Your task to perform on an android device: turn pop-ups on in chrome Image 0: 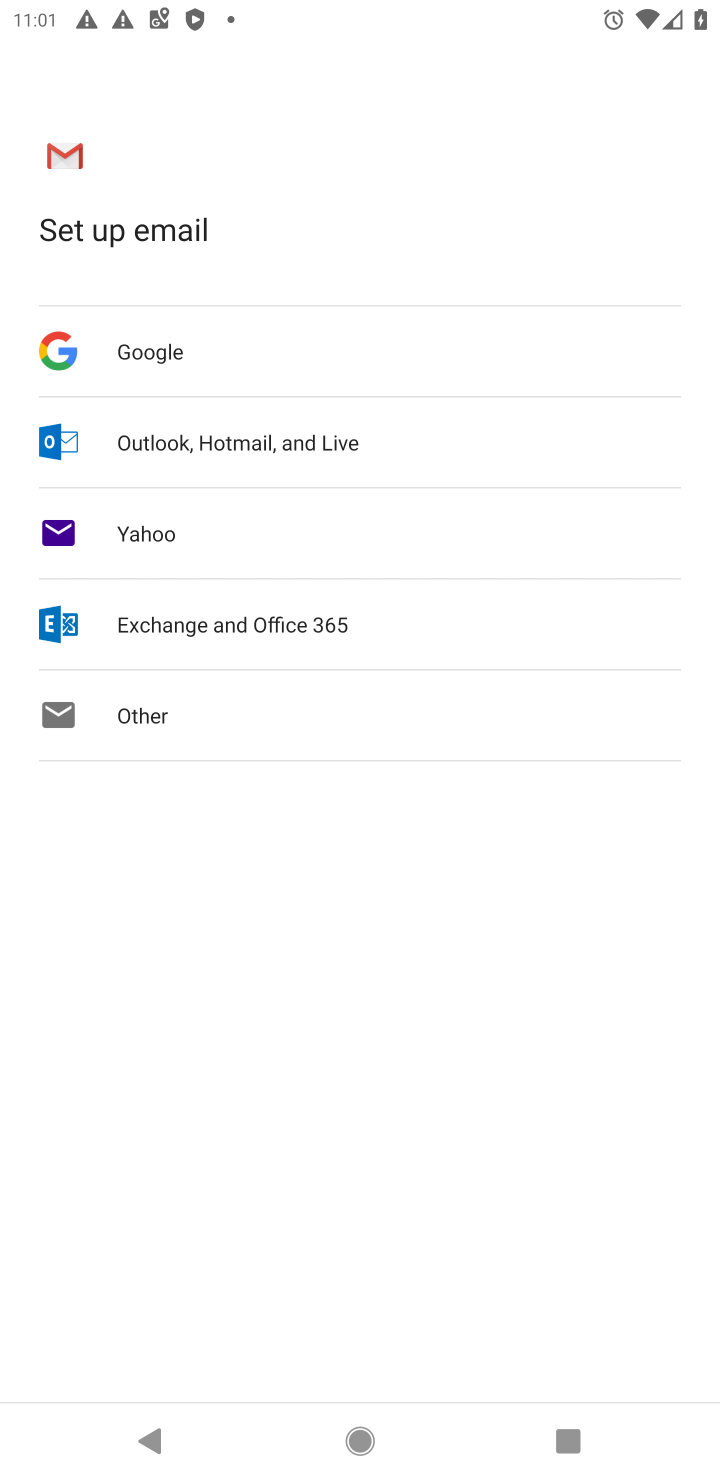
Step 0: press home button
Your task to perform on an android device: turn pop-ups on in chrome Image 1: 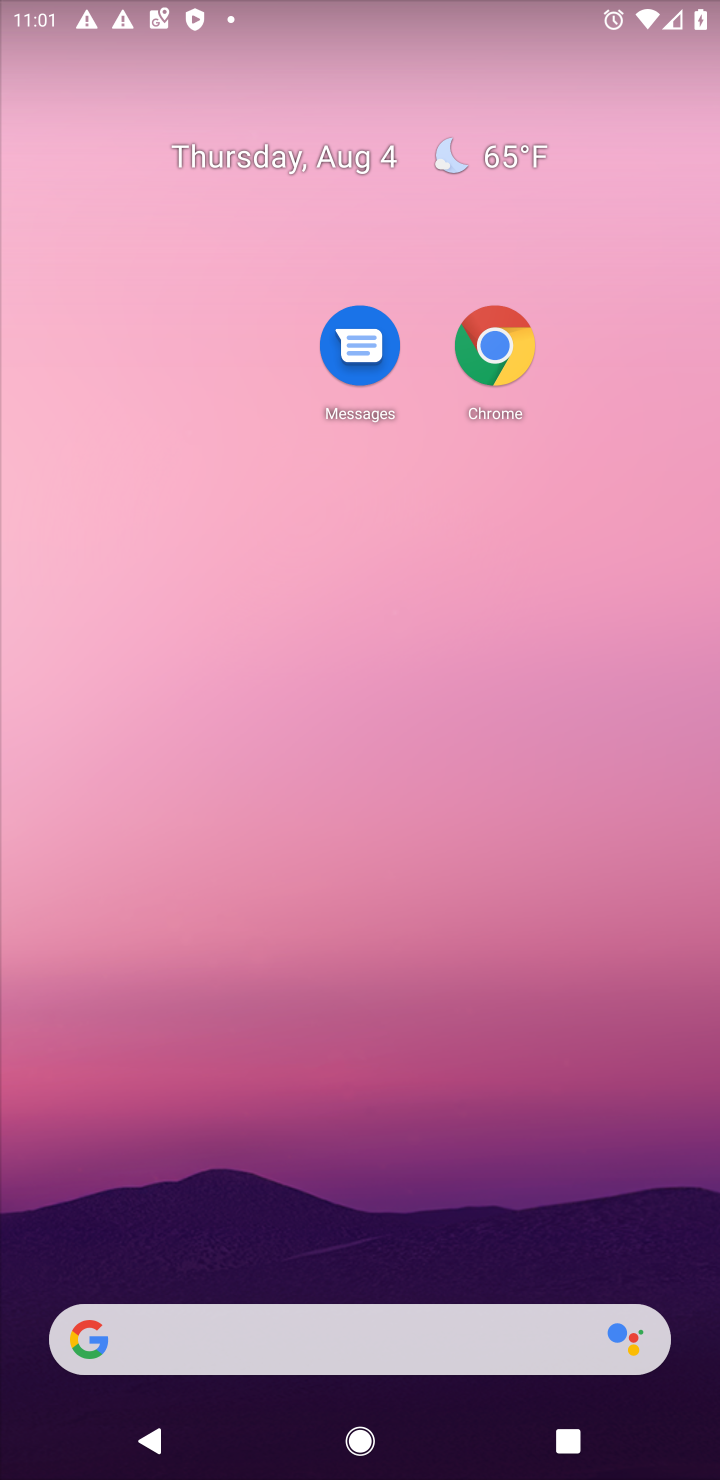
Step 1: drag from (480, 1281) to (509, 46)
Your task to perform on an android device: turn pop-ups on in chrome Image 2: 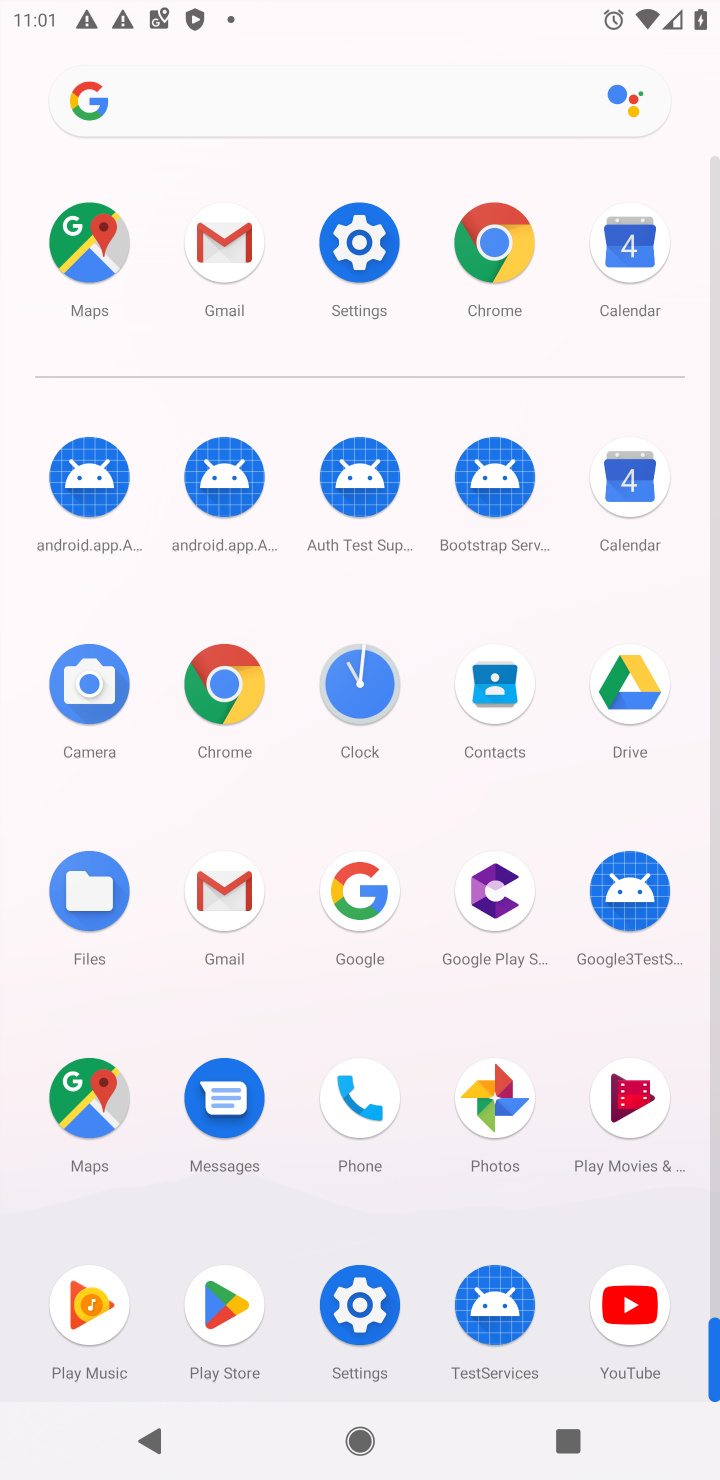
Step 2: click (454, 250)
Your task to perform on an android device: turn pop-ups on in chrome Image 3: 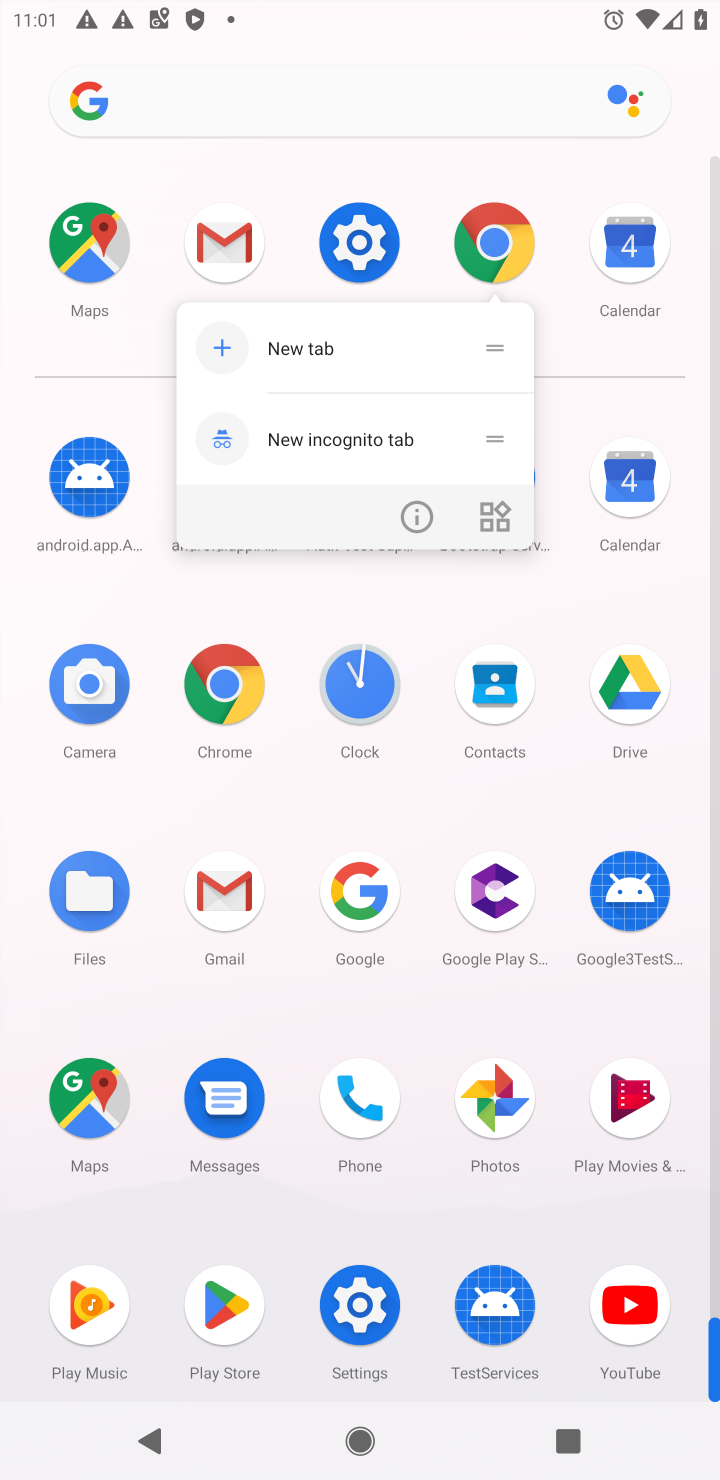
Step 3: click (486, 252)
Your task to perform on an android device: turn pop-ups on in chrome Image 4: 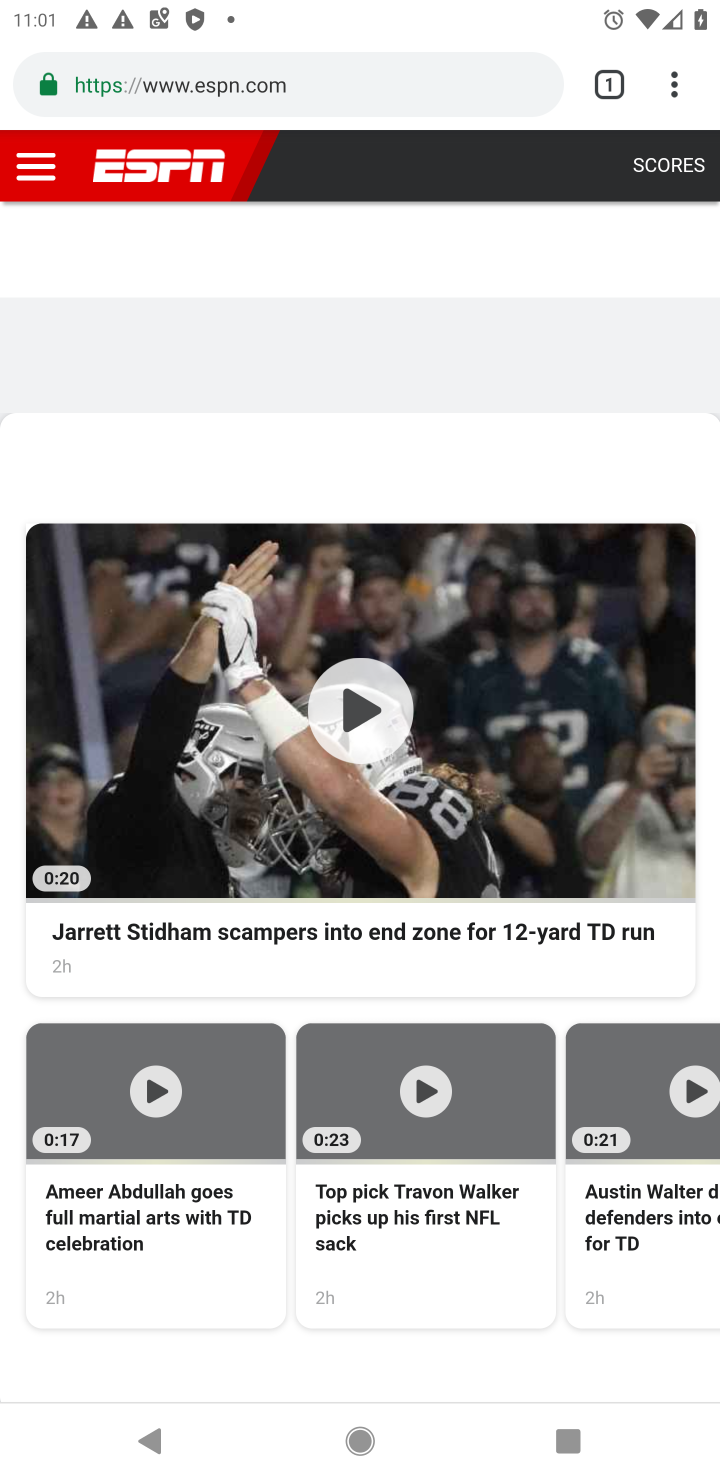
Step 4: drag from (675, 87) to (372, 977)
Your task to perform on an android device: turn pop-ups on in chrome Image 5: 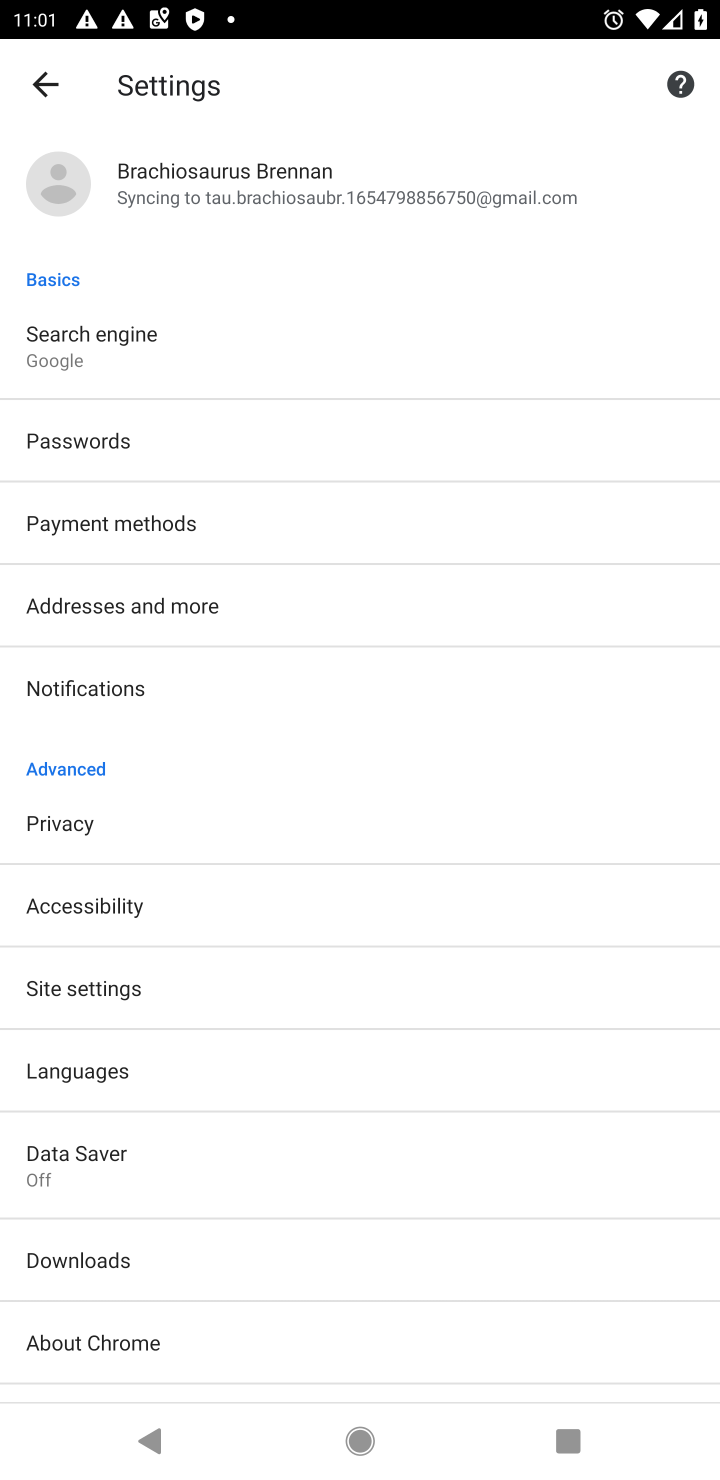
Step 5: click (62, 992)
Your task to perform on an android device: turn pop-ups on in chrome Image 6: 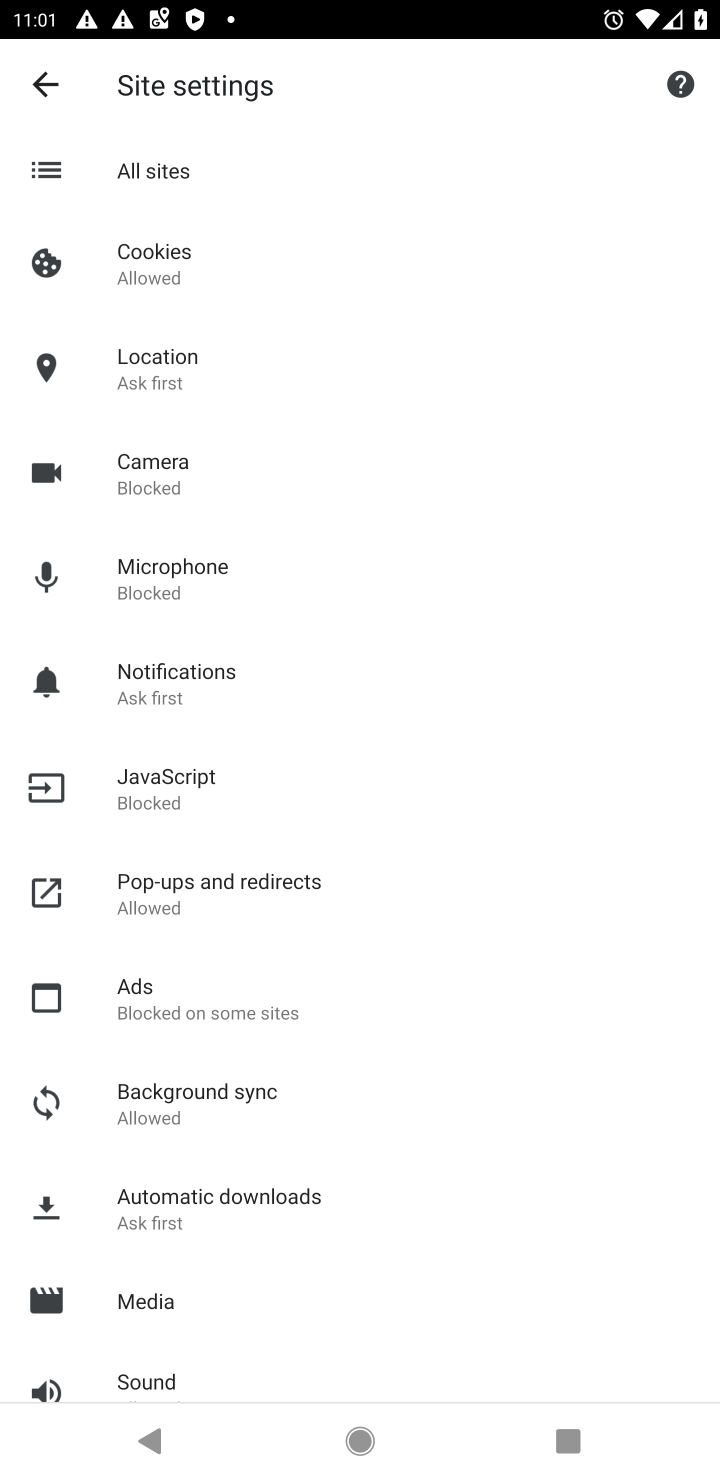
Step 6: click (341, 876)
Your task to perform on an android device: turn pop-ups on in chrome Image 7: 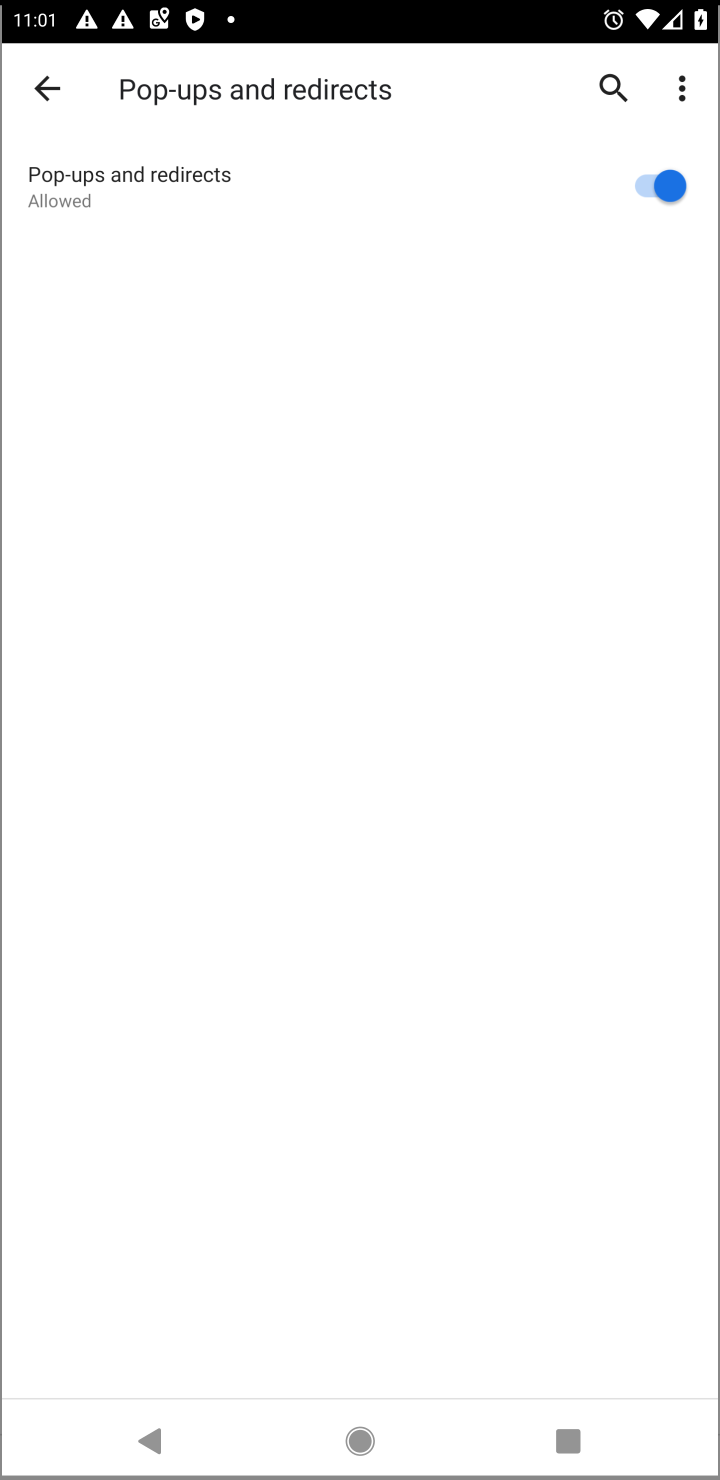
Step 7: click (314, 902)
Your task to perform on an android device: turn pop-ups on in chrome Image 8: 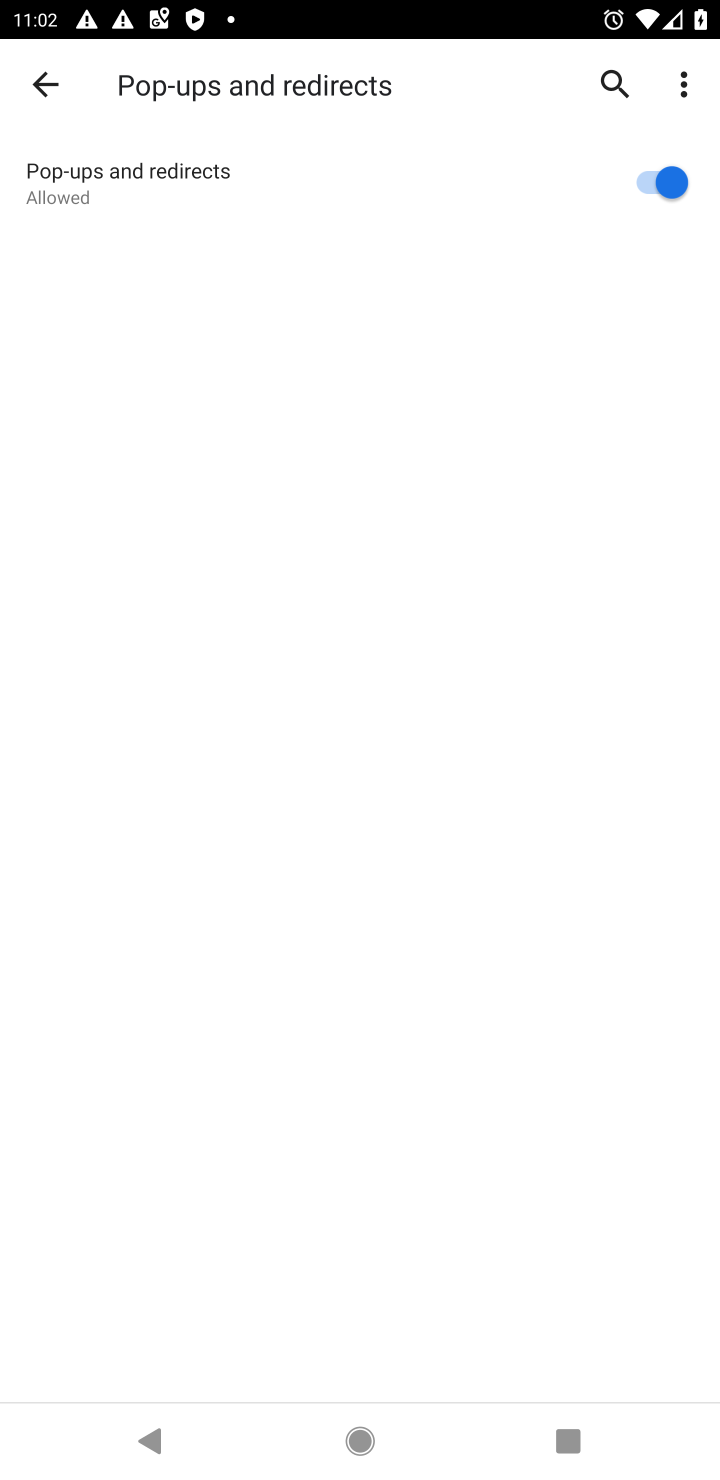
Step 8: task complete